Your task to perform on an android device: choose inbox layout in the gmail app Image 0: 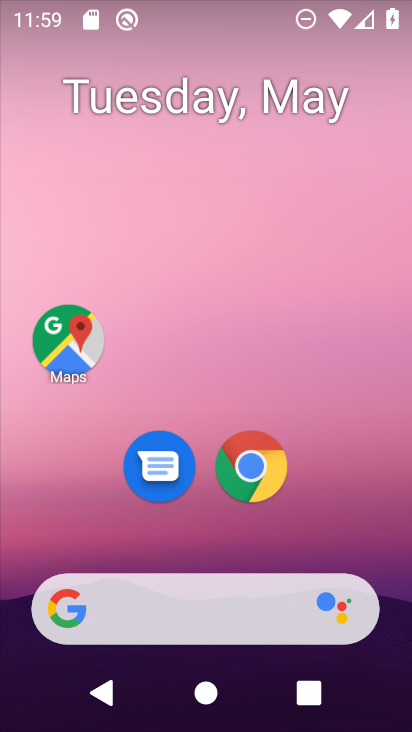
Step 0: press home button
Your task to perform on an android device: choose inbox layout in the gmail app Image 1: 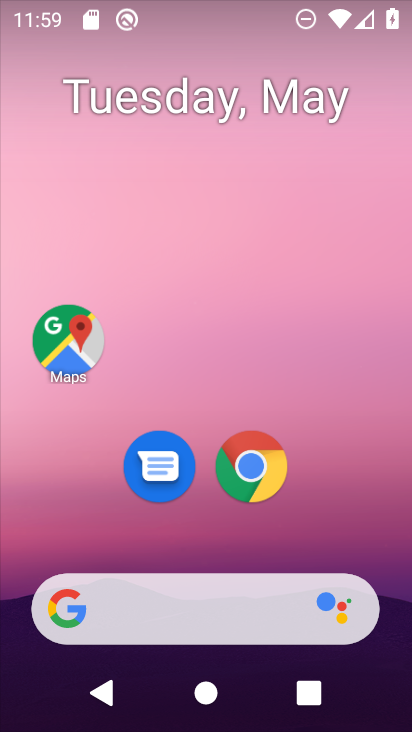
Step 1: drag from (210, 549) to (211, 106)
Your task to perform on an android device: choose inbox layout in the gmail app Image 2: 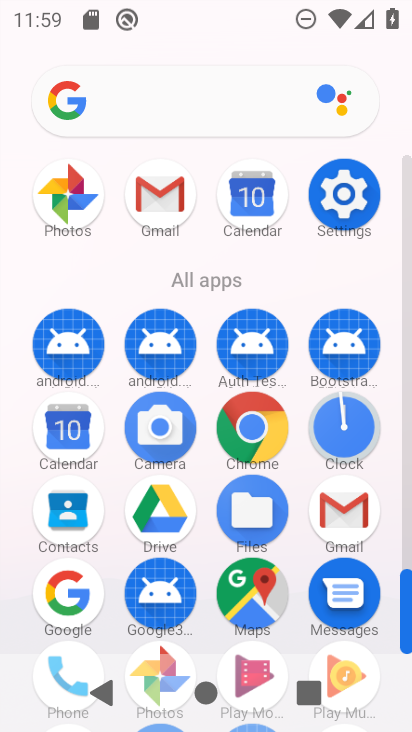
Step 2: click (344, 505)
Your task to perform on an android device: choose inbox layout in the gmail app Image 3: 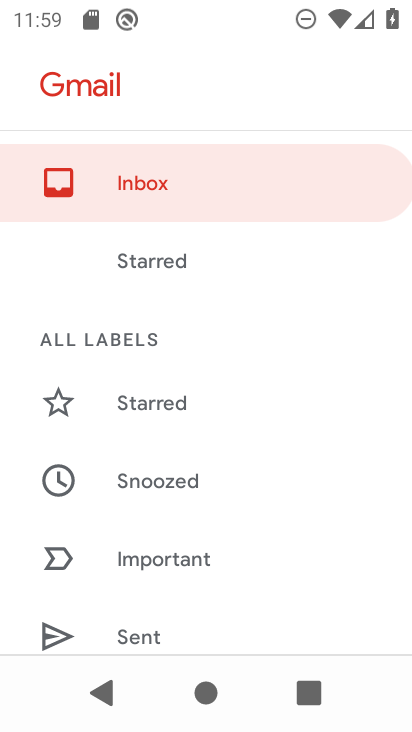
Step 3: drag from (191, 611) to (213, 52)
Your task to perform on an android device: choose inbox layout in the gmail app Image 4: 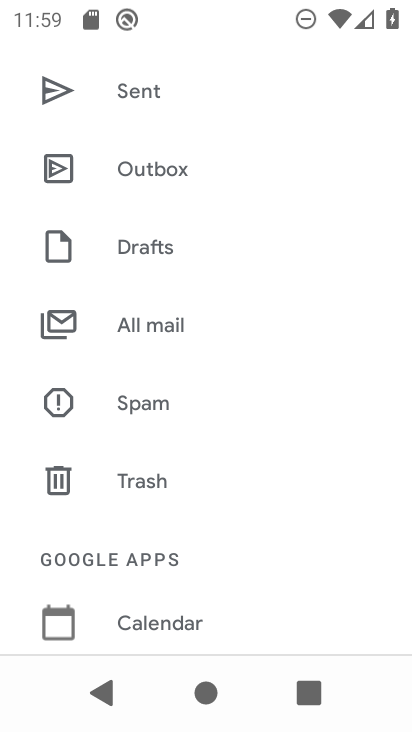
Step 4: drag from (205, 586) to (235, 152)
Your task to perform on an android device: choose inbox layout in the gmail app Image 5: 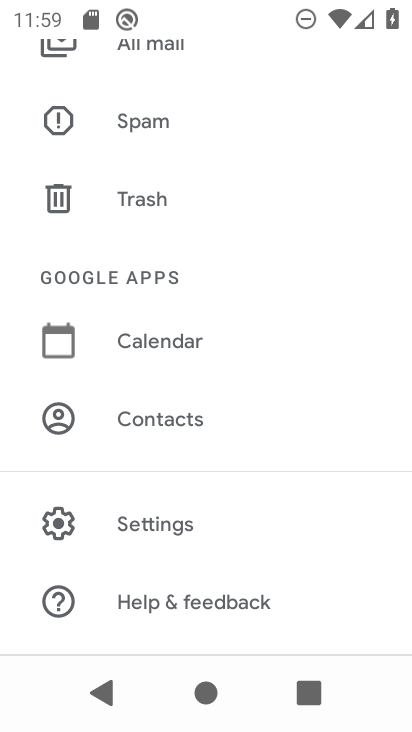
Step 5: click (205, 518)
Your task to perform on an android device: choose inbox layout in the gmail app Image 6: 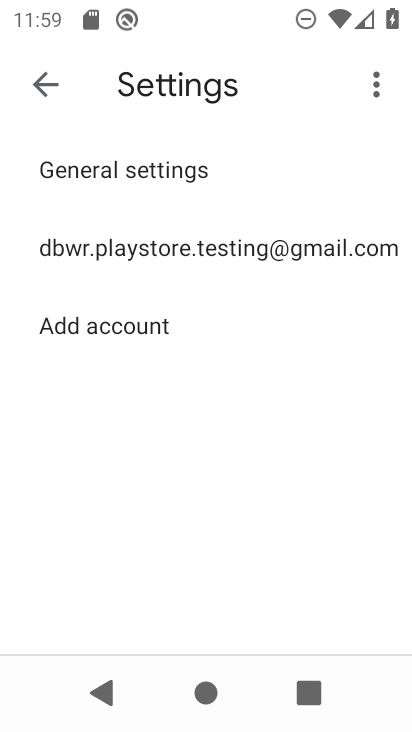
Step 6: click (230, 254)
Your task to perform on an android device: choose inbox layout in the gmail app Image 7: 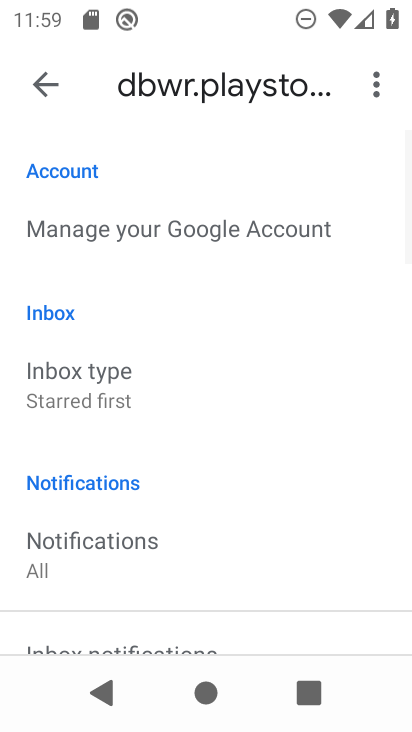
Step 7: click (160, 391)
Your task to perform on an android device: choose inbox layout in the gmail app Image 8: 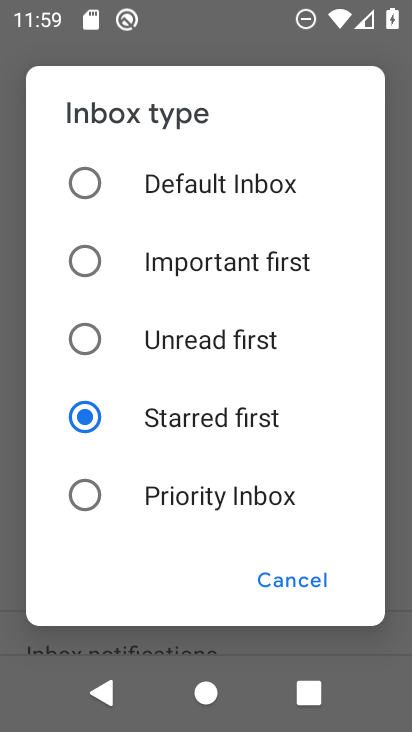
Step 8: click (86, 171)
Your task to perform on an android device: choose inbox layout in the gmail app Image 9: 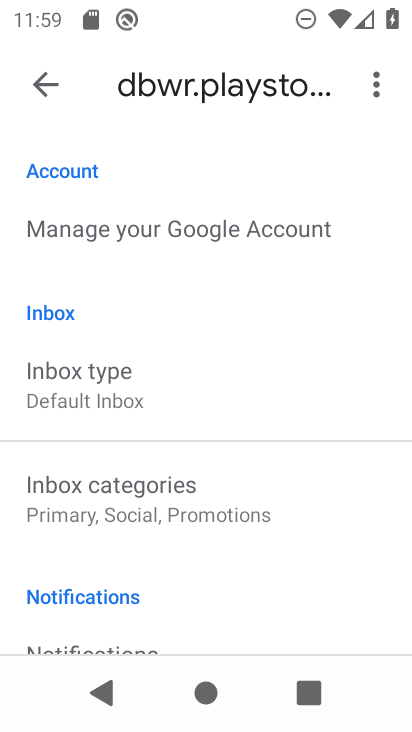
Step 9: task complete